Your task to perform on an android device: toggle show notifications on the lock screen Image 0: 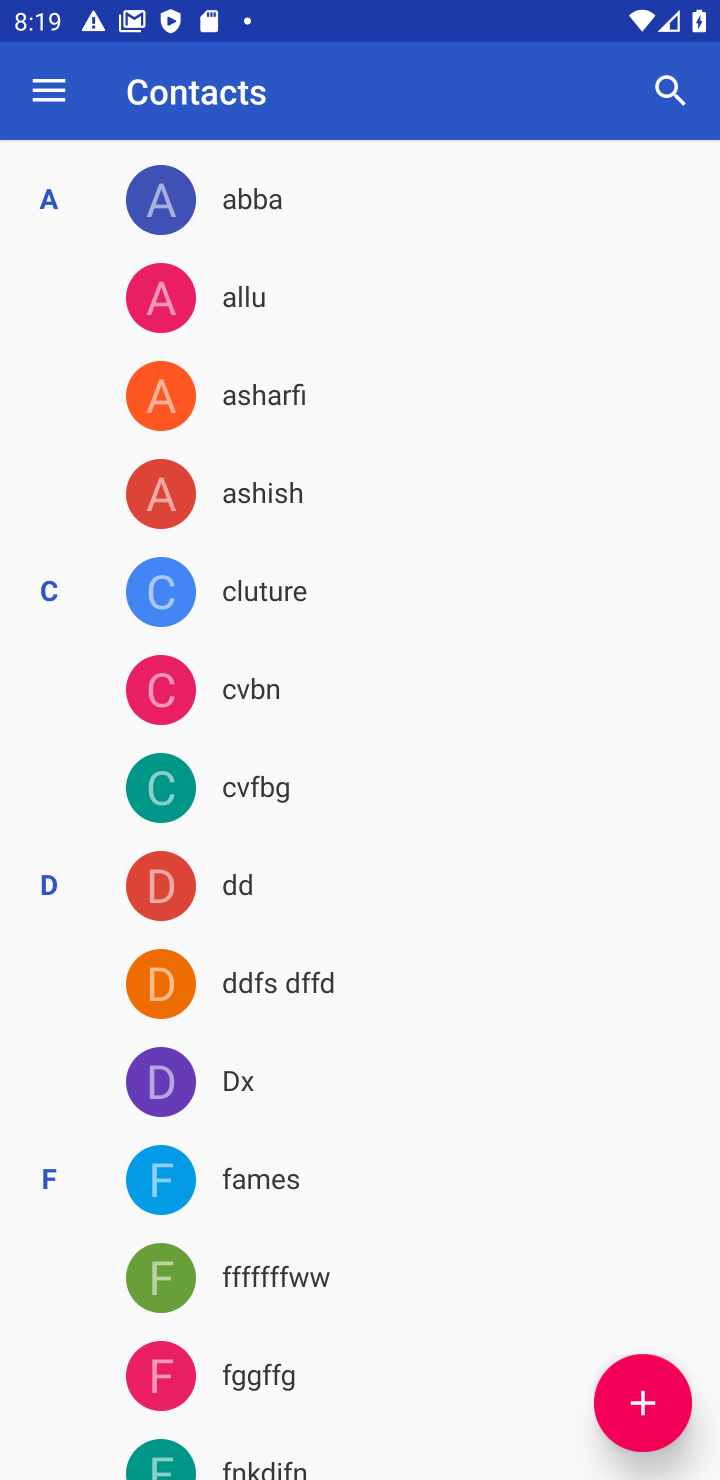
Step 0: press home button
Your task to perform on an android device: toggle show notifications on the lock screen Image 1: 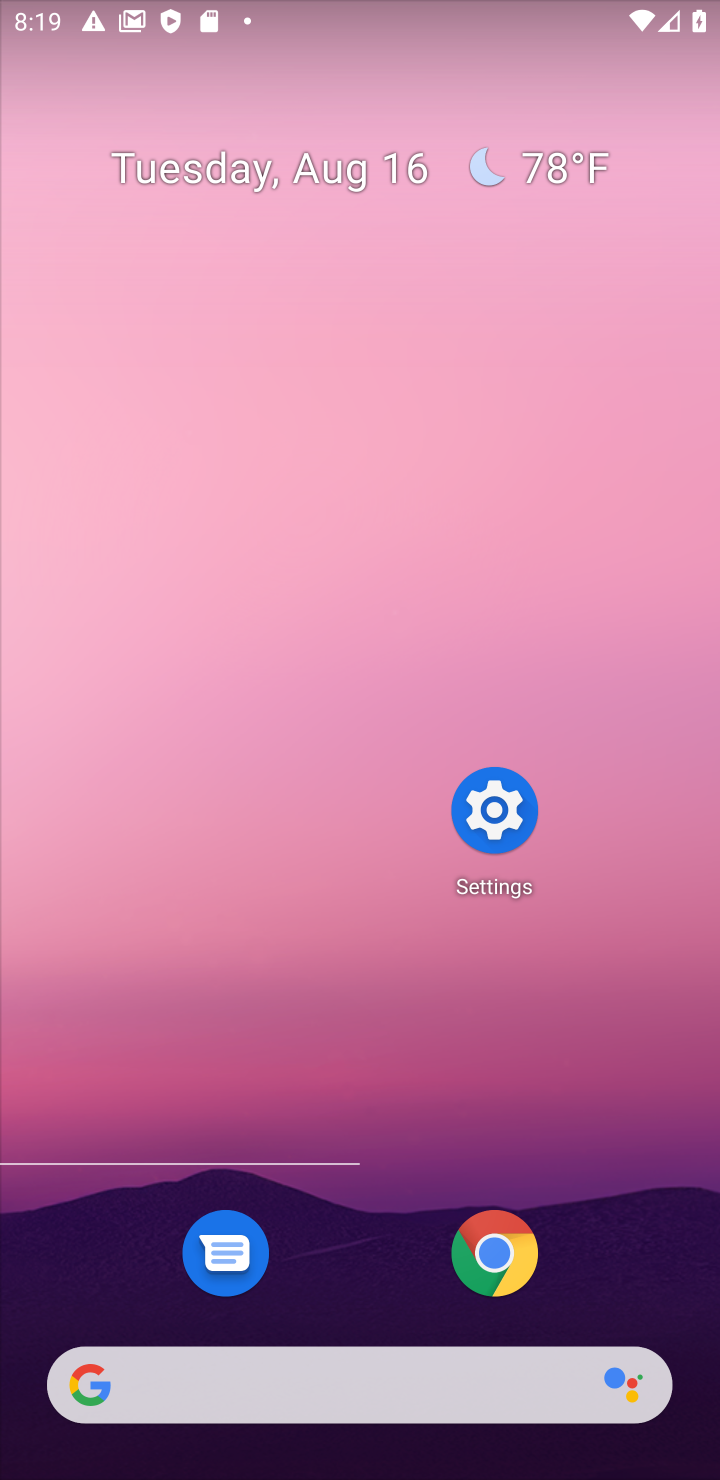
Step 1: click (523, 814)
Your task to perform on an android device: toggle show notifications on the lock screen Image 2: 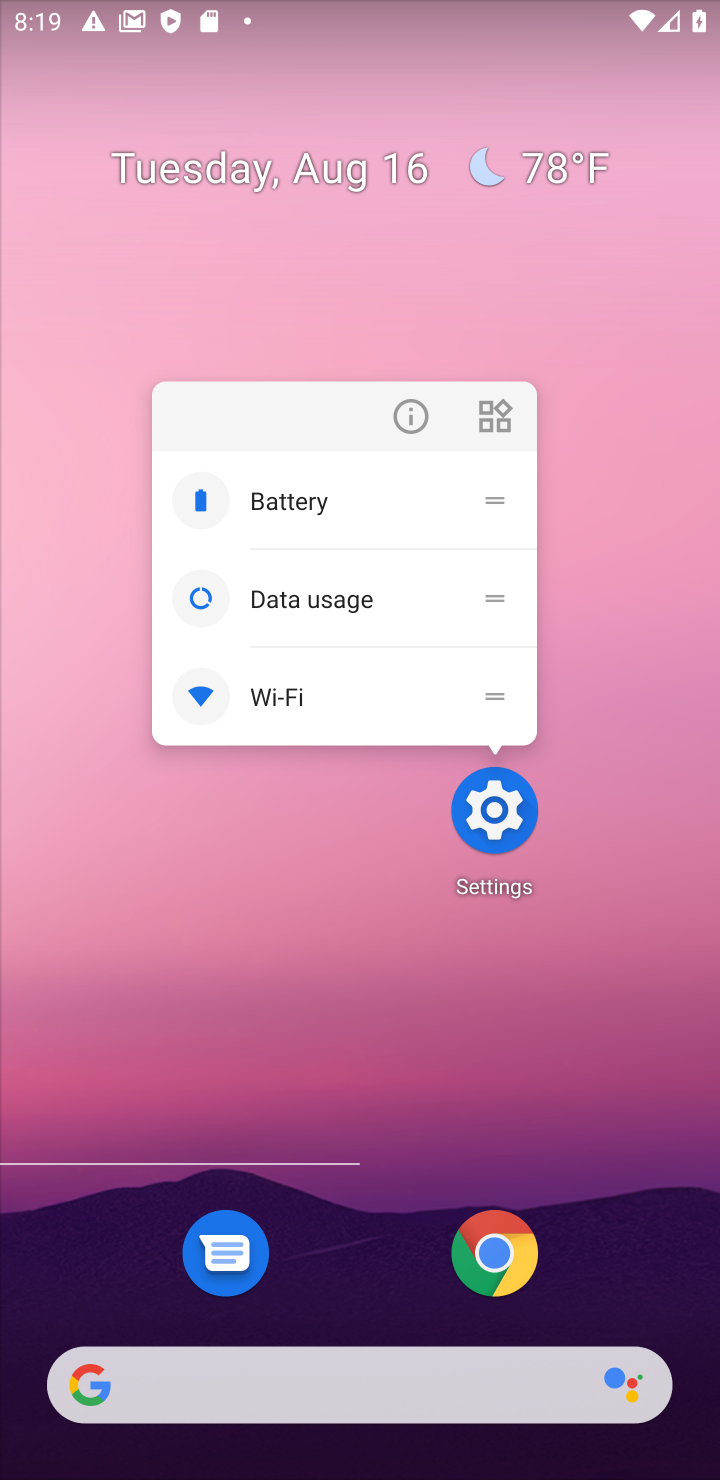
Step 2: click (495, 793)
Your task to perform on an android device: toggle show notifications on the lock screen Image 3: 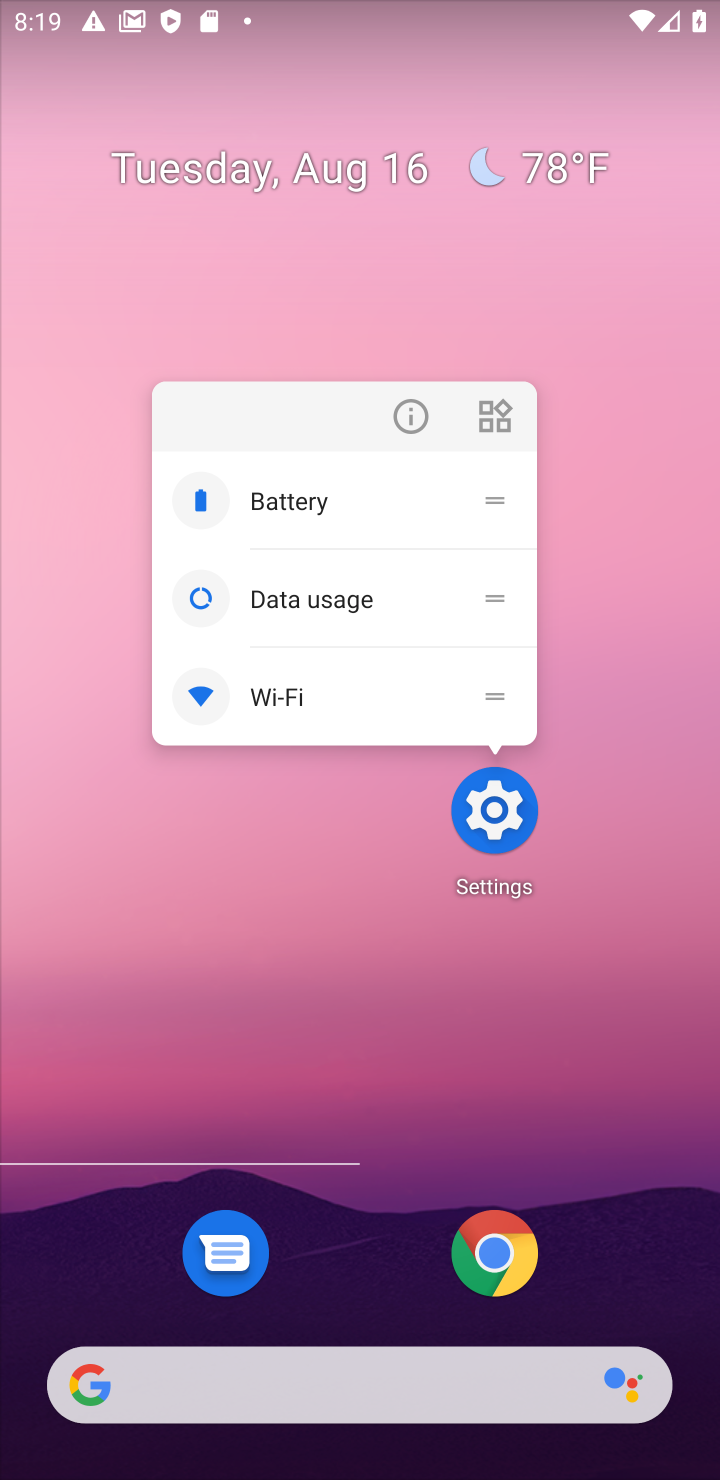
Step 3: click (493, 804)
Your task to perform on an android device: toggle show notifications on the lock screen Image 4: 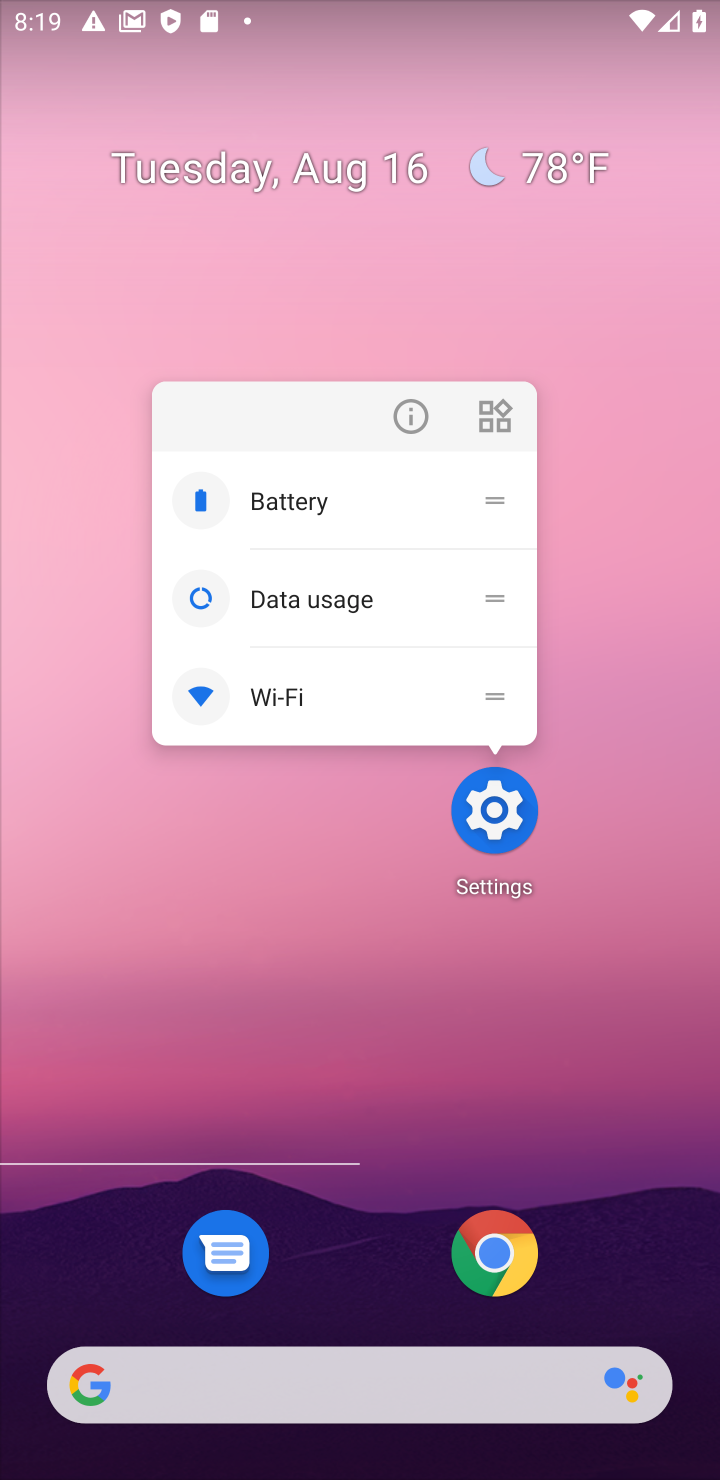
Step 4: click (505, 825)
Your task to perform on an android device: toggle show notifications on the lock screen Image 5: 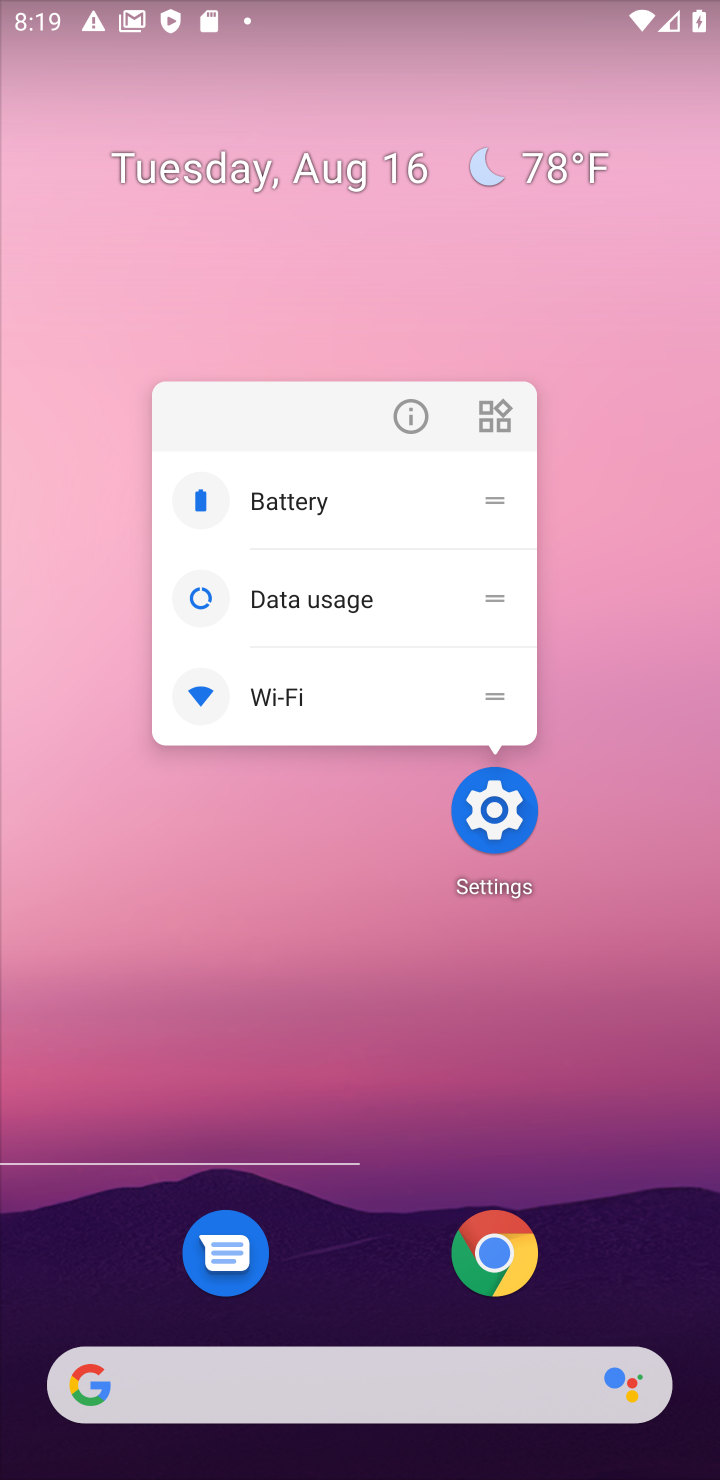
Step 5: click (501, 809)
Your task to perform on an android device: toggle show notifications on the lock screen Image 6: 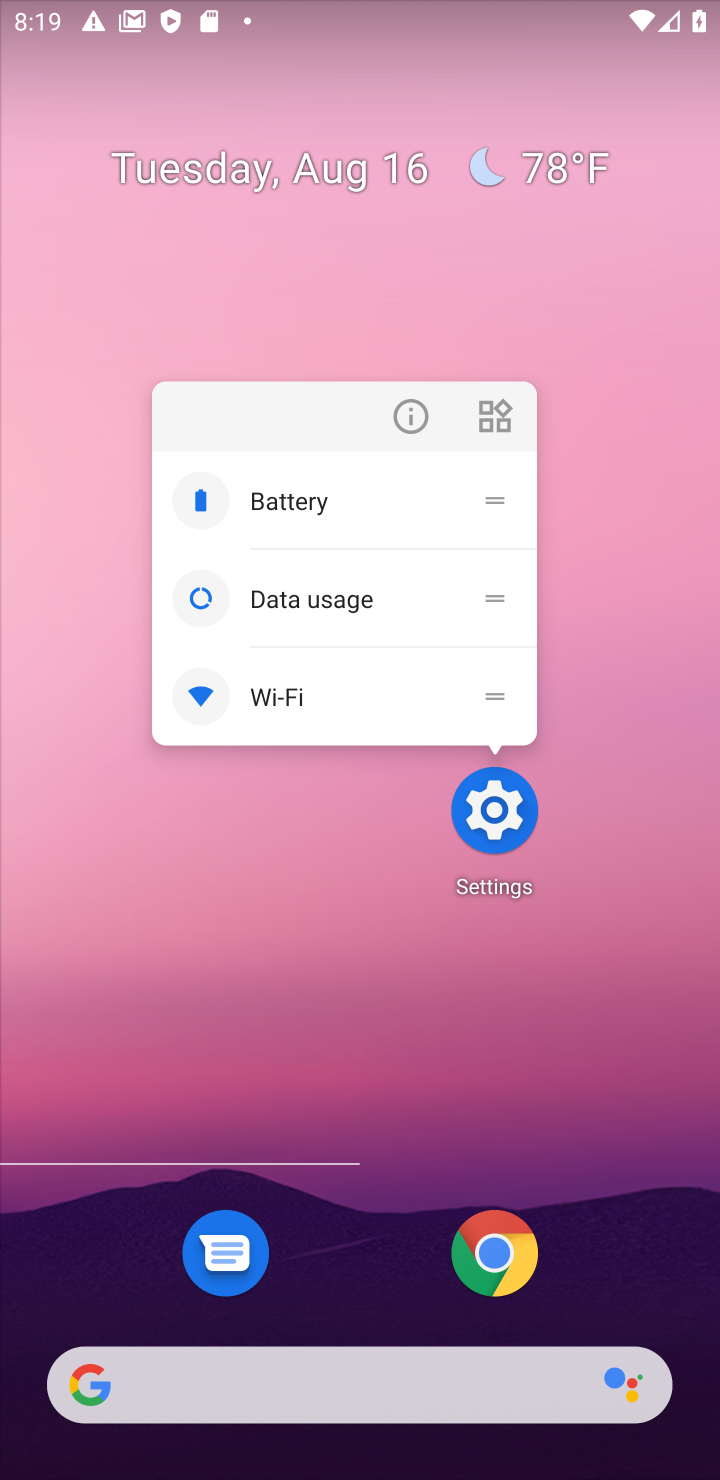
Step 6: click (501, 817)
Your task to perform on an android device: toggle show notifications on the lock screen Image 7: 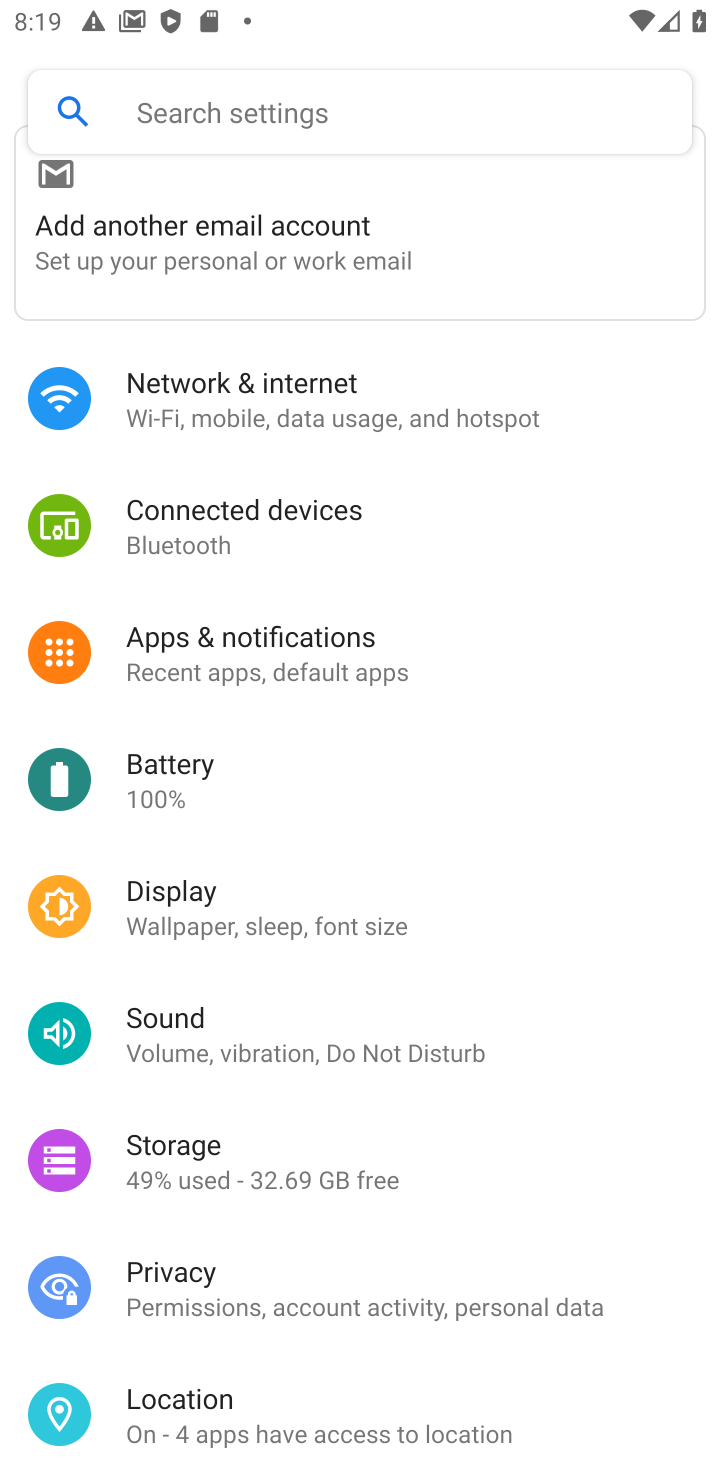
Step 7: drag from (442, 1195) to (620, 157)
Your task to perform on an android device: toggle show notifications on the lock screen Image 8: 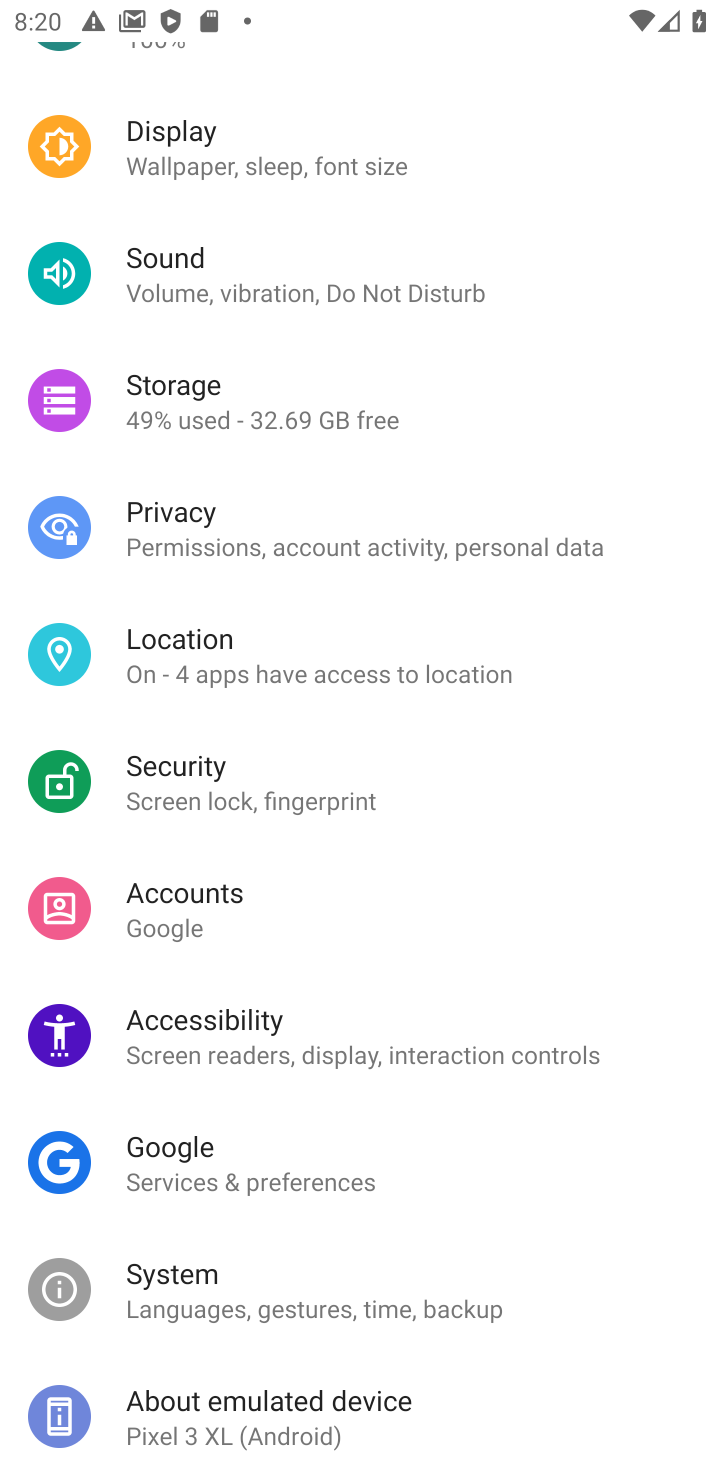
Step 8: drag from (513, 223) to (346, 1099)
Your task to perform on an android device: toggle show notifications on the lock screen Image 9: 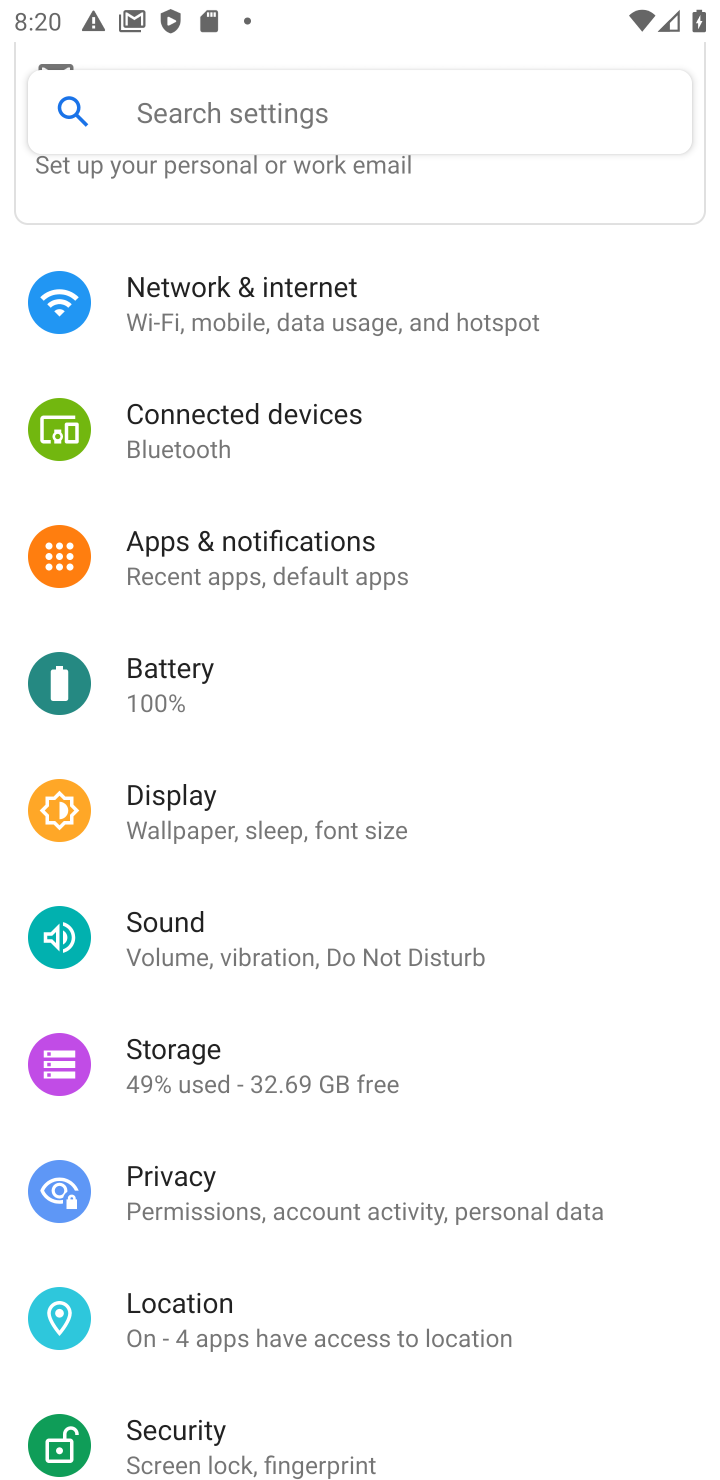
Step 9: click (261, 553)
Your task to perform on an android device: toggle show notifications on the lock screen Image 10: 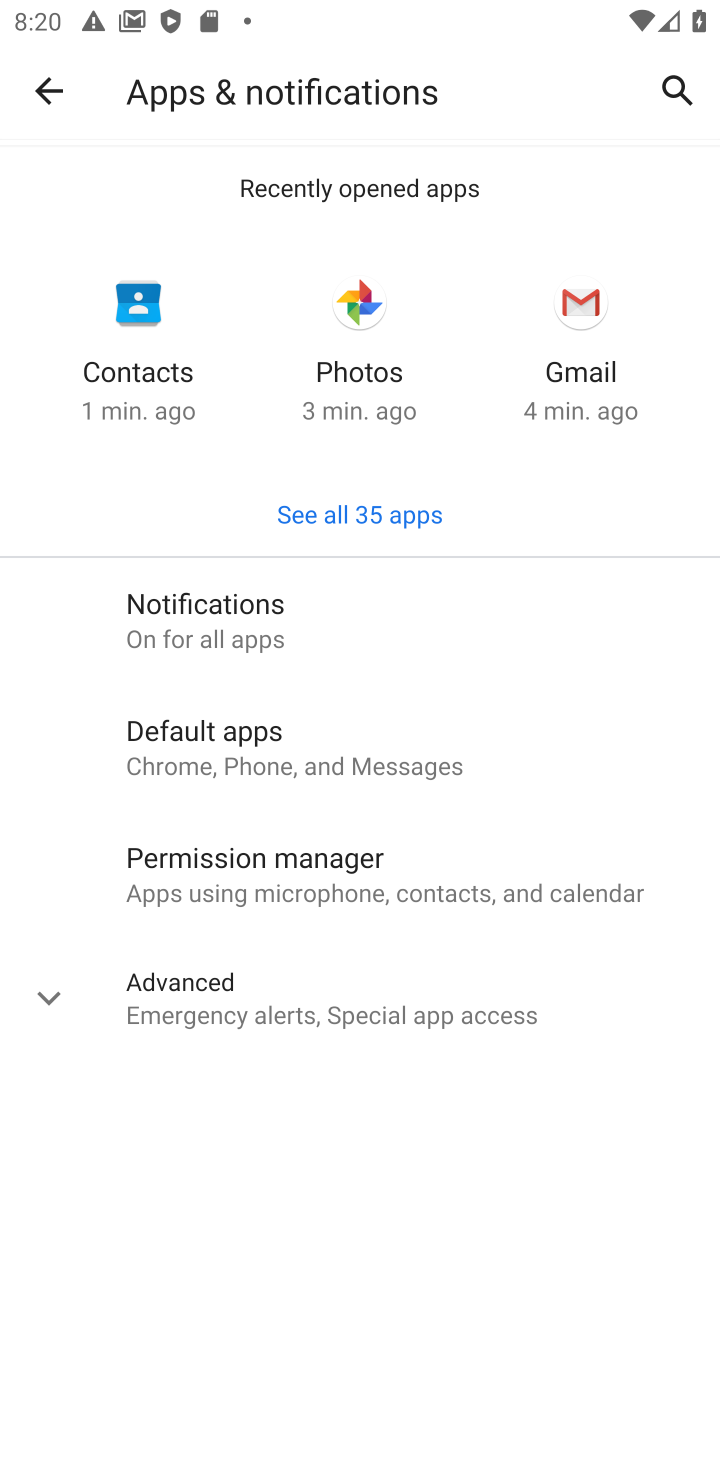
Step 10: click (244, 603)
Your task to perform on an android device: toggle show notifications on the lock screen Image 11: 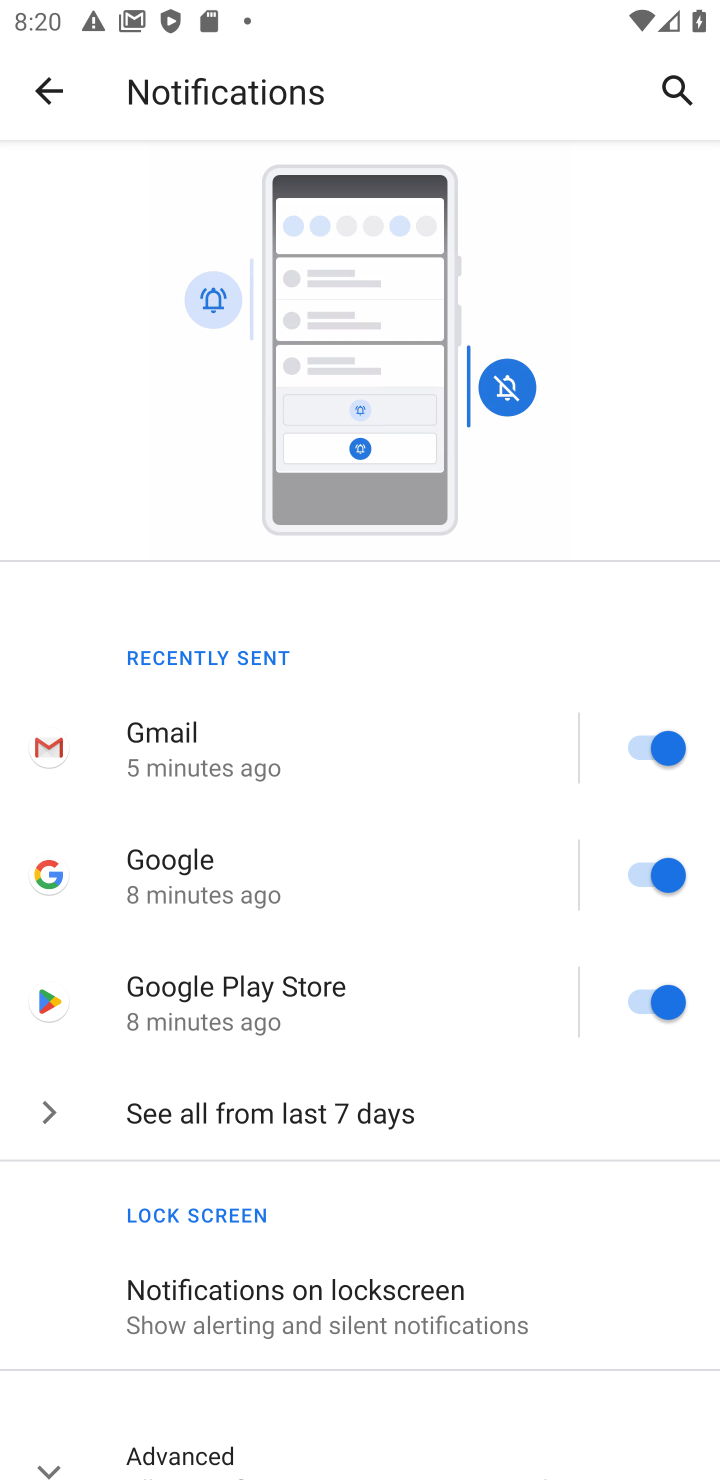
Step 11: click (360, 1289)
Your task to perform on an android device: toggle show notifications on the lock screen Image 12: 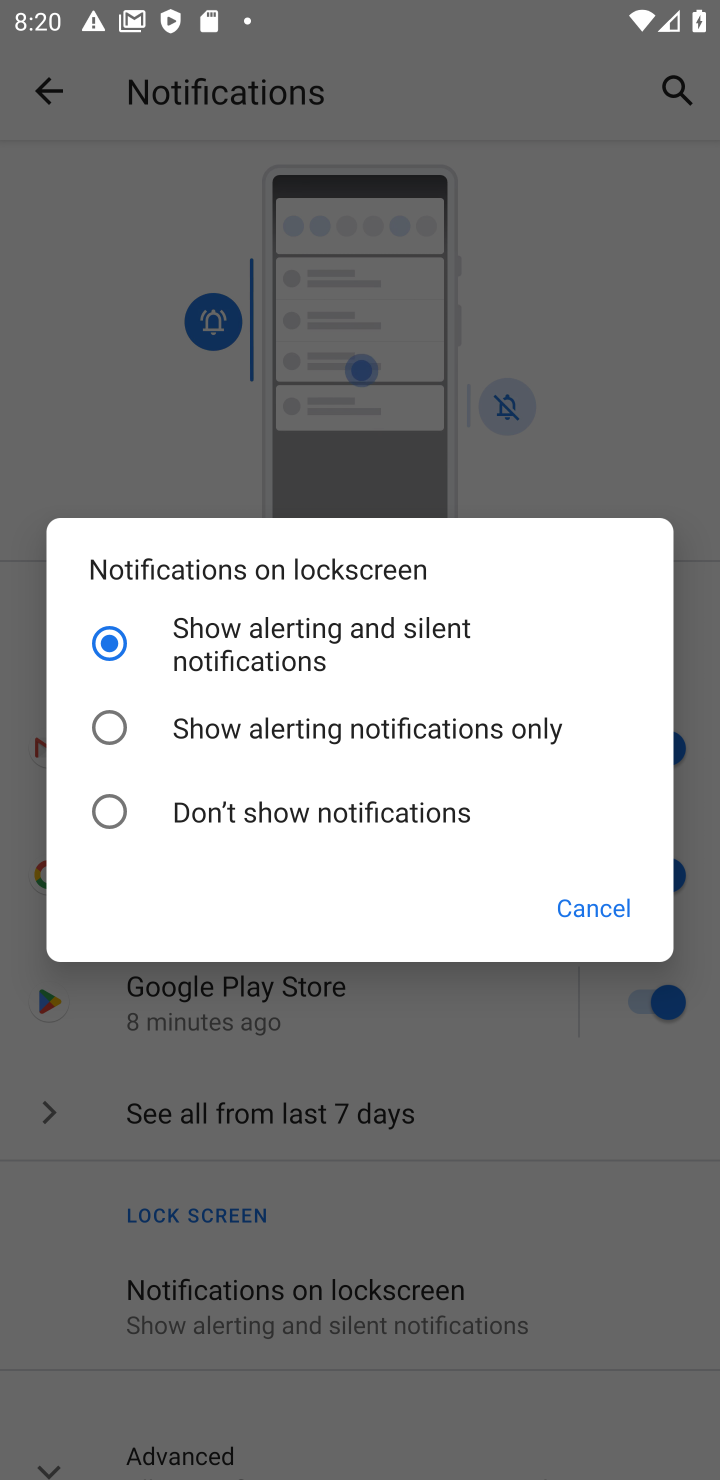
Step 12: click (110, 809)
Your task to perform on an android device: toggle show notifications on the lock screen Image 13: 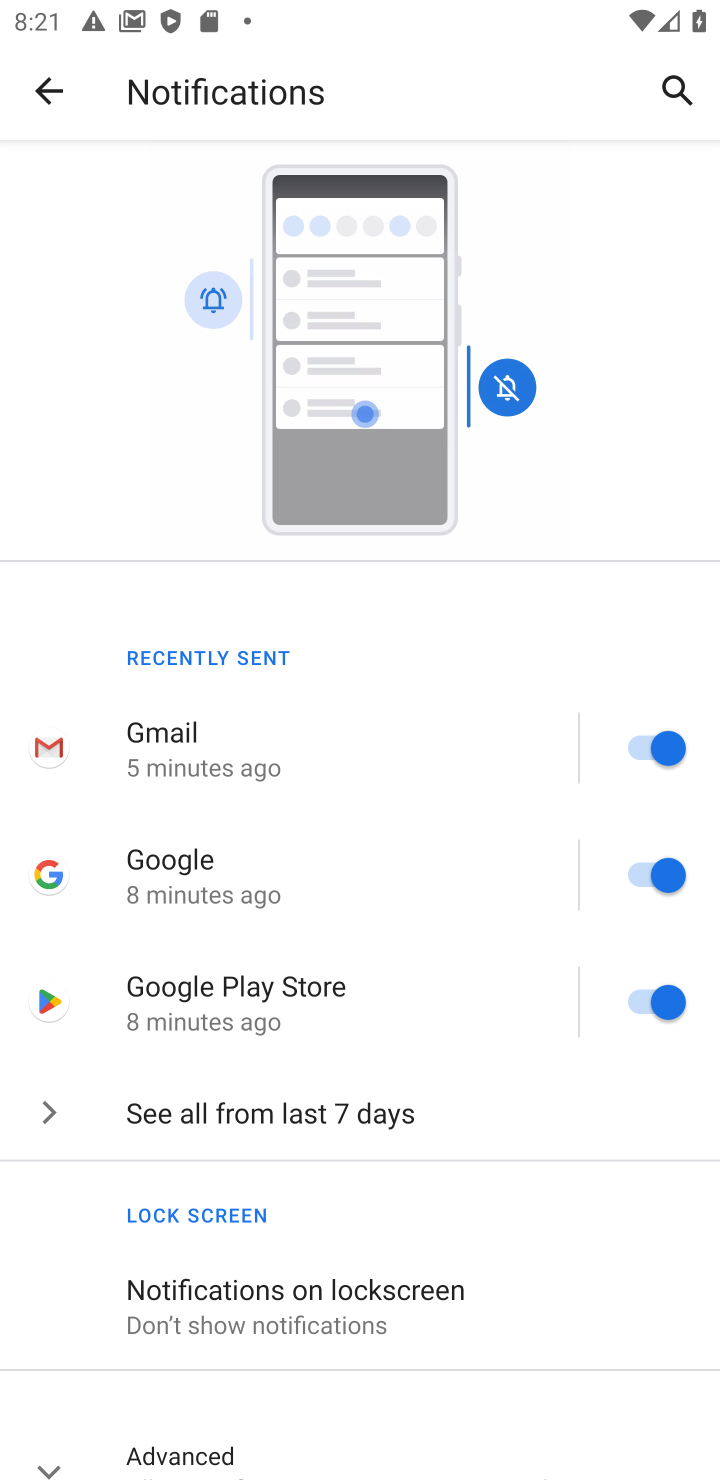
Step 13: task complete